Your task to perform on an android device: Show me popular games on the Play Store Image 0: 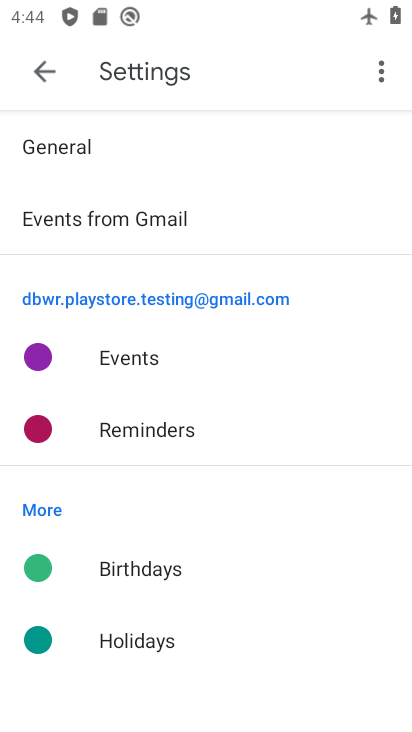
Step 0: press home button
Your task to perform on an android device: Show me popular games on the Play Store Image 1: 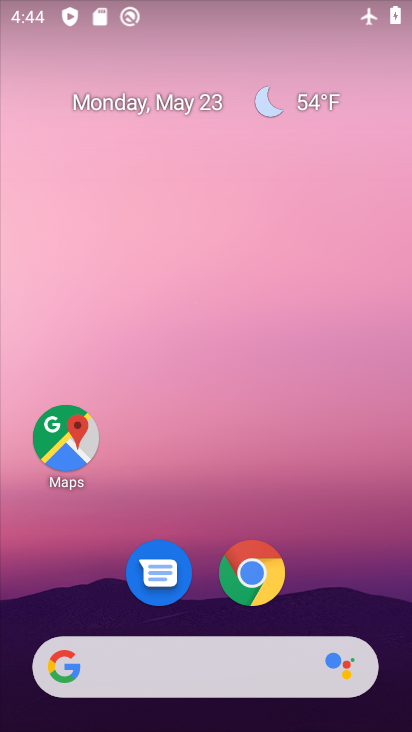
Step 1: drag from (215, 722) to (214, 218)
Your task to perform on an android device: Show me popular games on the Play Store Image 2: 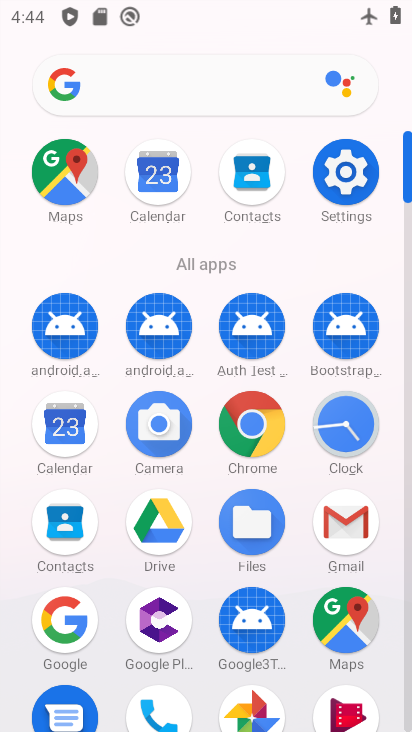
Step 2: drag from (291, 697) to (270, 360)
Your task to perform on an android device: Show me popular games on the Play Store Image 3: 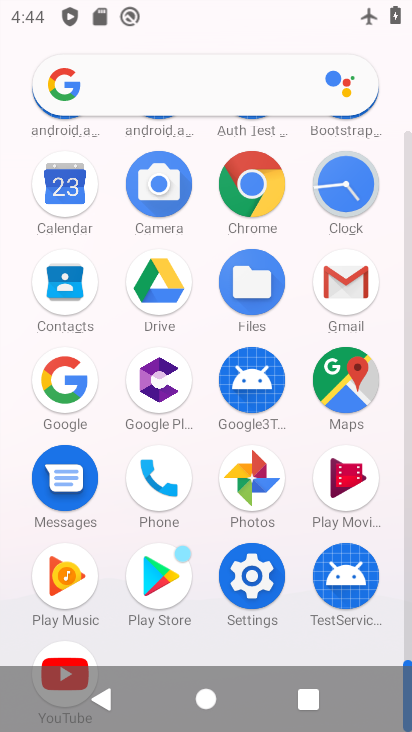
Step 3: click (154, 588)
Your task to perform on an android device: Show me popular games on the Play Store Image 4: 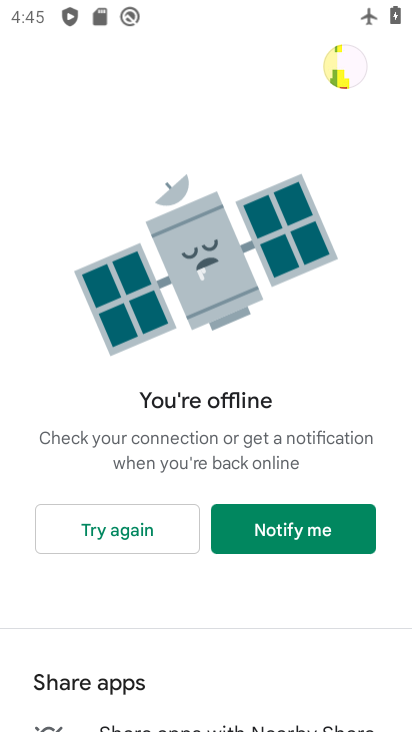
Step 4: click (261, 535)
Your task to perform on an android device: Show me popular games on the Play Store Image 5: 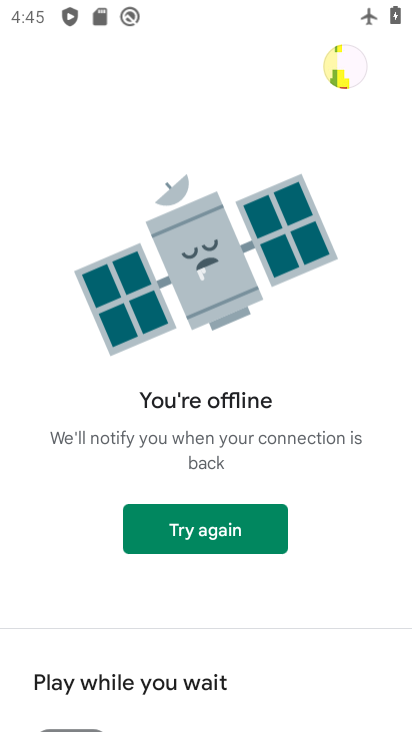
Step 5: press home button
Your task to perform on an android device: Show me popular games on the Play Store Image 6: 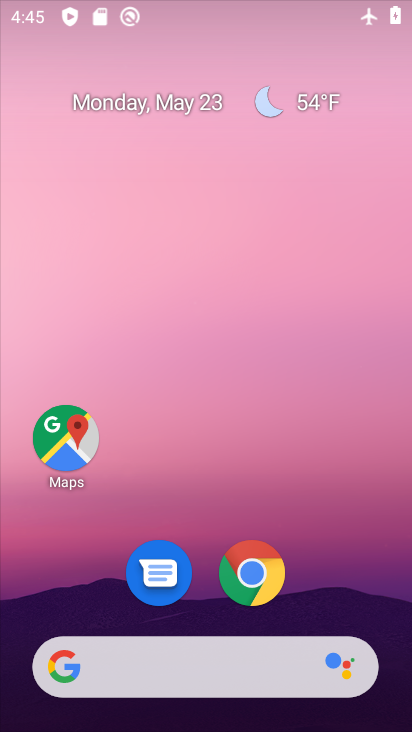
Step 6: drag from (206, 725) to (191, 253)
Your task to perform on an android device: Show me popular games on the Play Store Image 7: 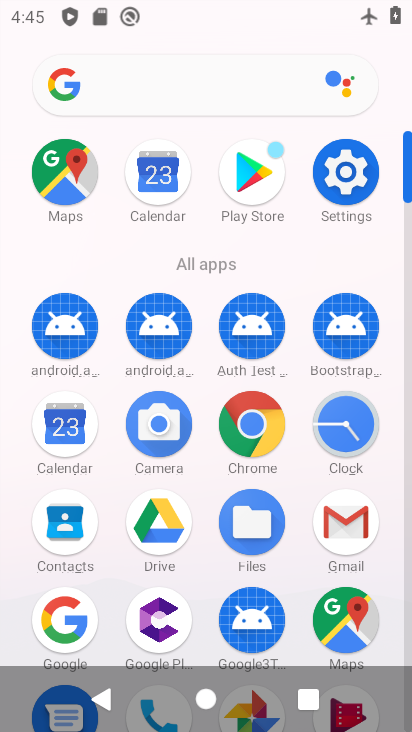
Step 7: drag from (209, 646) to (209, 287)
Your task to perform on an android device: Show me popular games on the Play Store Image 8: 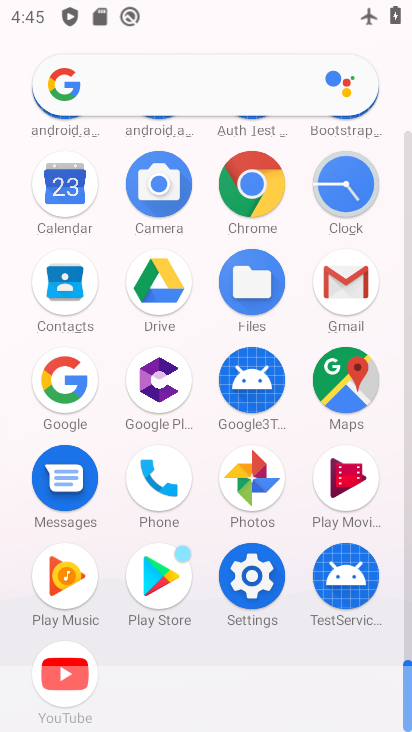
Step 8: click (151, 586)
Your task to perform on an android device: Show me popular games on the Play Store Image 9: 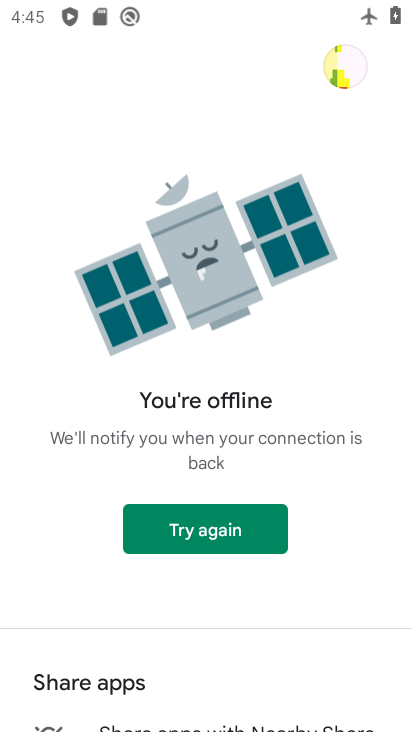
Step 9: task complete